Your task to perform on an android device: turn on the 24-hour format for clock Image 0: 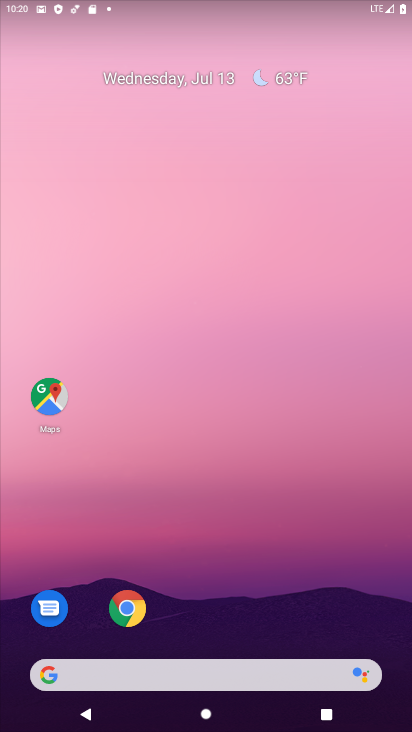
Step 0: drag from (192, 623) to (367, 12)
Your task to perform on an android device: turn on the 24-hour format for clock Image 1: 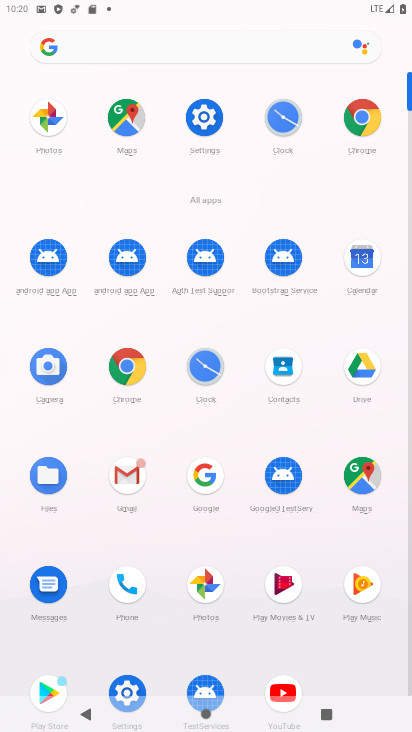
Step 1: click (124, 683)
Your task to perform on an android device: turn on the 24-hour format for clock Image 2: 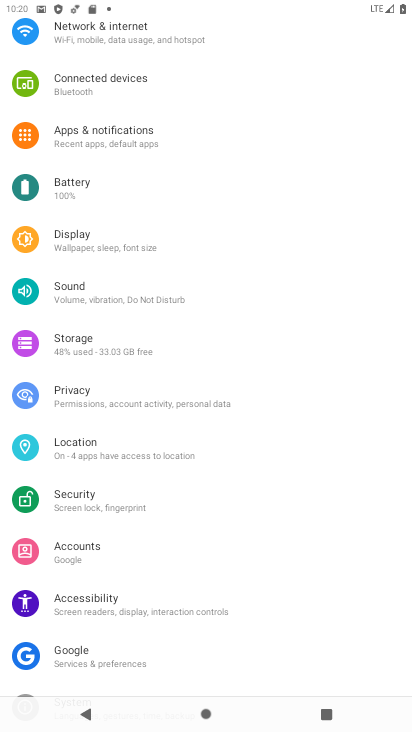
Step 2: drag from (120, 653) to (171, 265)
Your task to perform on an android device: turn on the 24-hour format for clock Image 3: 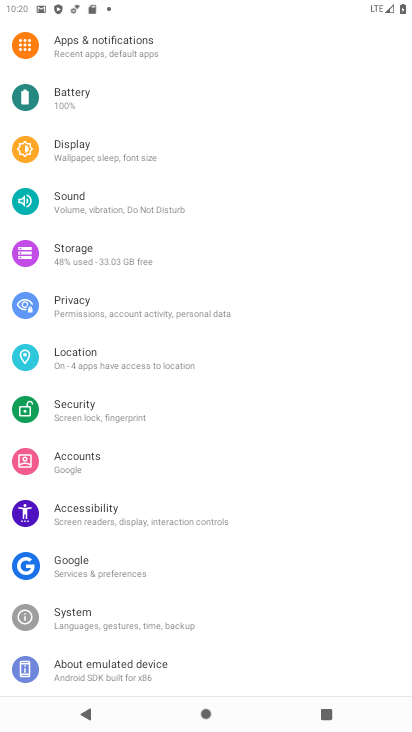
Step 3: click (81, 613)
Your task to perform on an android device: turn on the 24-hour format for clock Image 4: 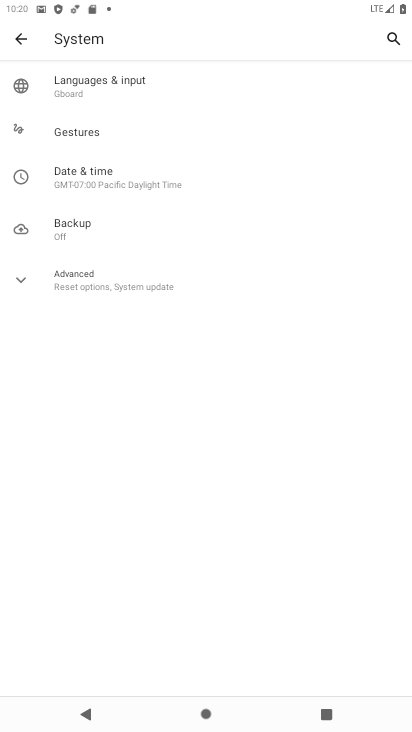
Step 4: click (128, 184)
Your task to perform on an android device: turn on the 24-hour format for clock Image 5: 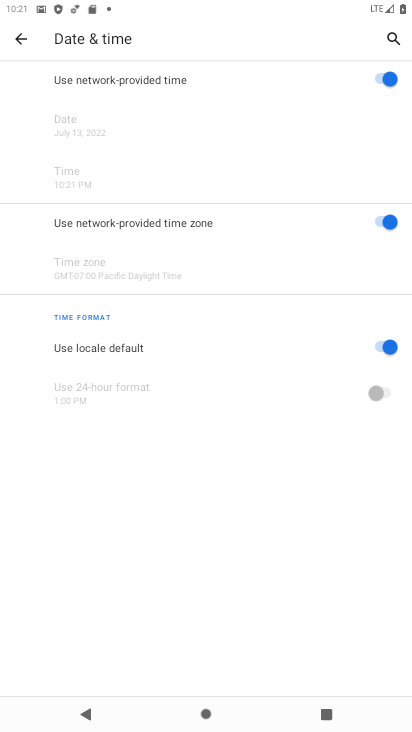
Step 5: click (383, 391)
Your task to perform on an android device: turn on the 24-hour format for clock Image 6: 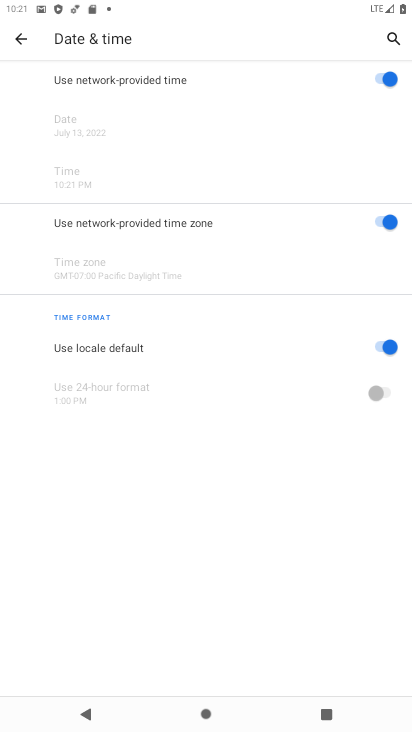
Step 6: click (377, 348)
Your task to perform on an android device: turn on the 24-hour format for clock Image 7: 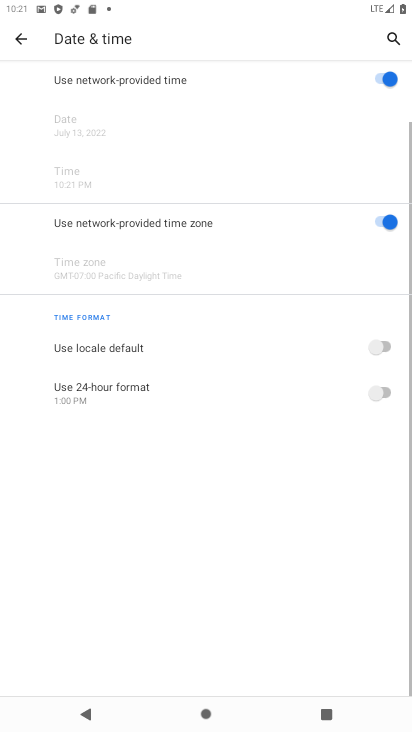
Step 7: click (394, 390)
Your task to perform on an android device: turn on the 24-hour format for clock Image 8: 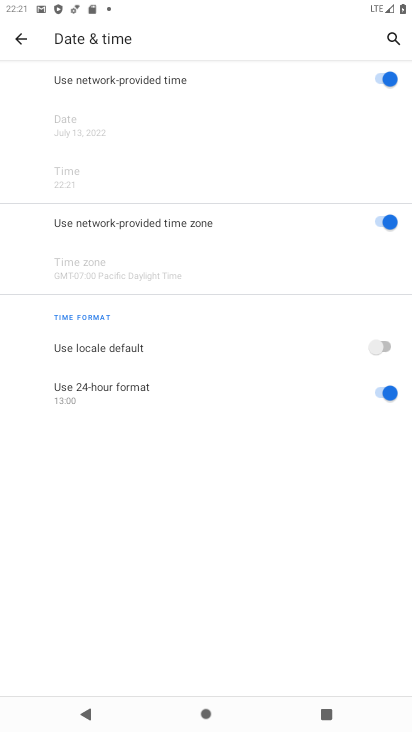
Step 8: task complete